Your task to perform on an android device: toggle show notifications on the lock screen Image 0: 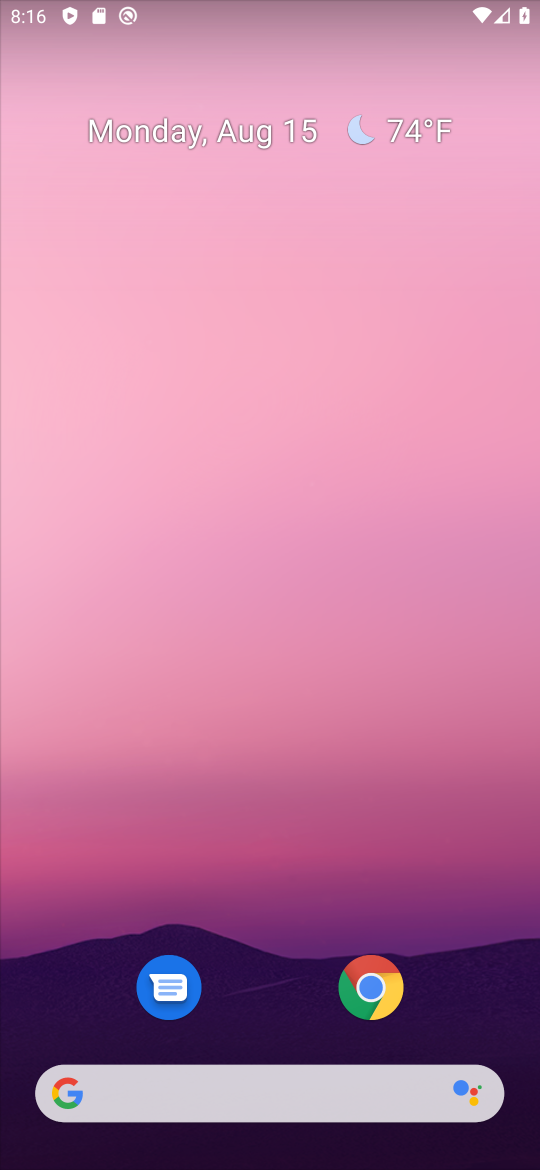
Step 0: drag from (338, 1060) to (207, 280)
Your task to perform on an android device: toggle show notifications on the lock screen Image 1: 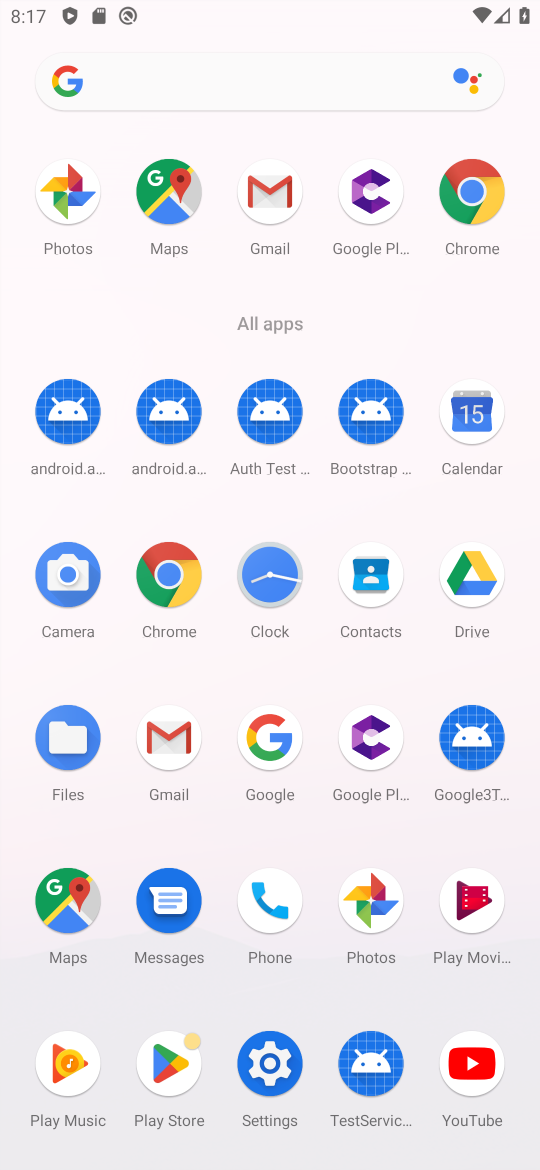
Step 1: click (272, 1081)
Your task to perform on an android device: toggle show notifications on the lock screen Image 2: 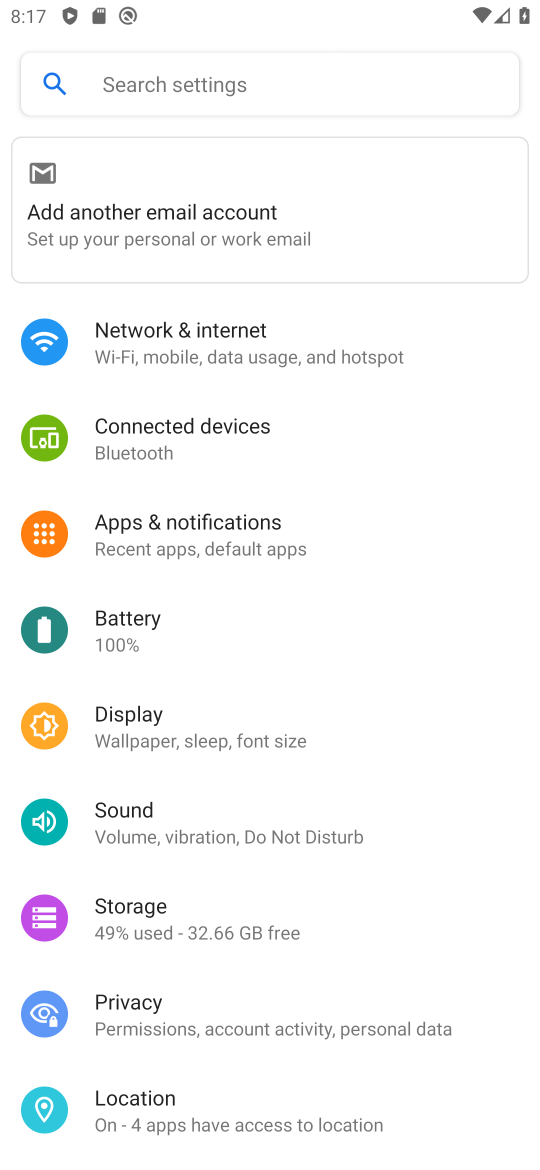
Step 2: click (134, 1035)
Your task to perform on an android device: toggle show notifications on the lock screen Image 3: 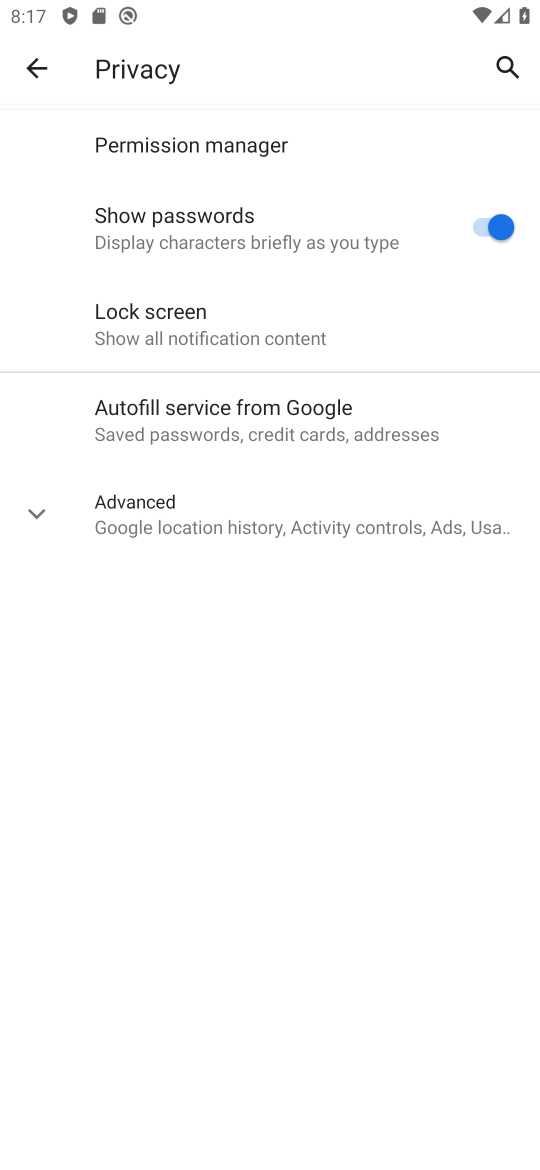
Step 3: click (174, 303)
Your task to perform on an android device: toggle show notifications on the lock screen Image 4: 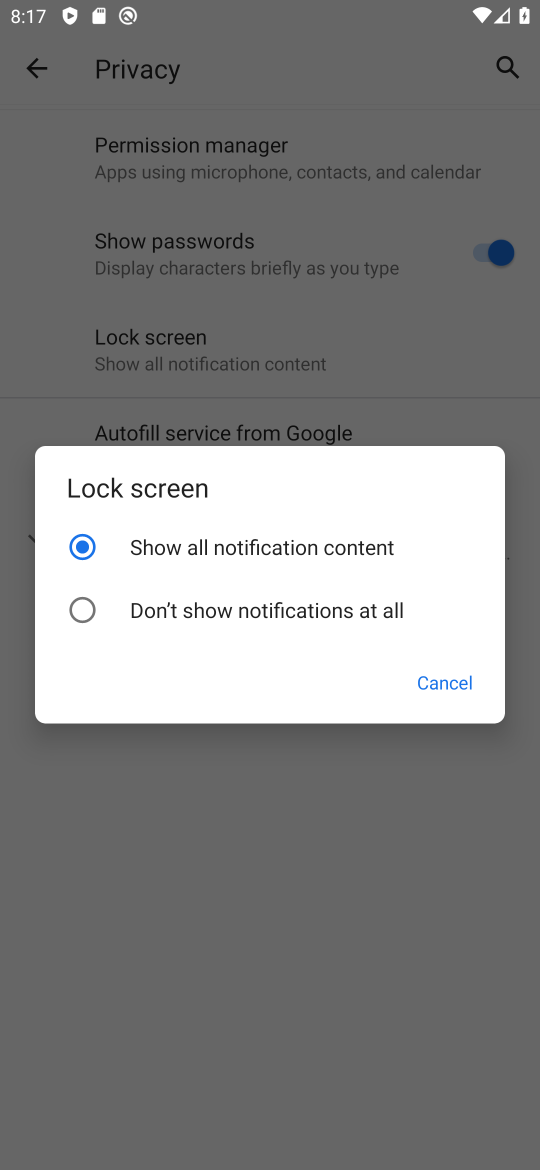
Step 4: click (269, 616)
Your task to perform on an android device: toggle show notifications on the lock screen Image 5: 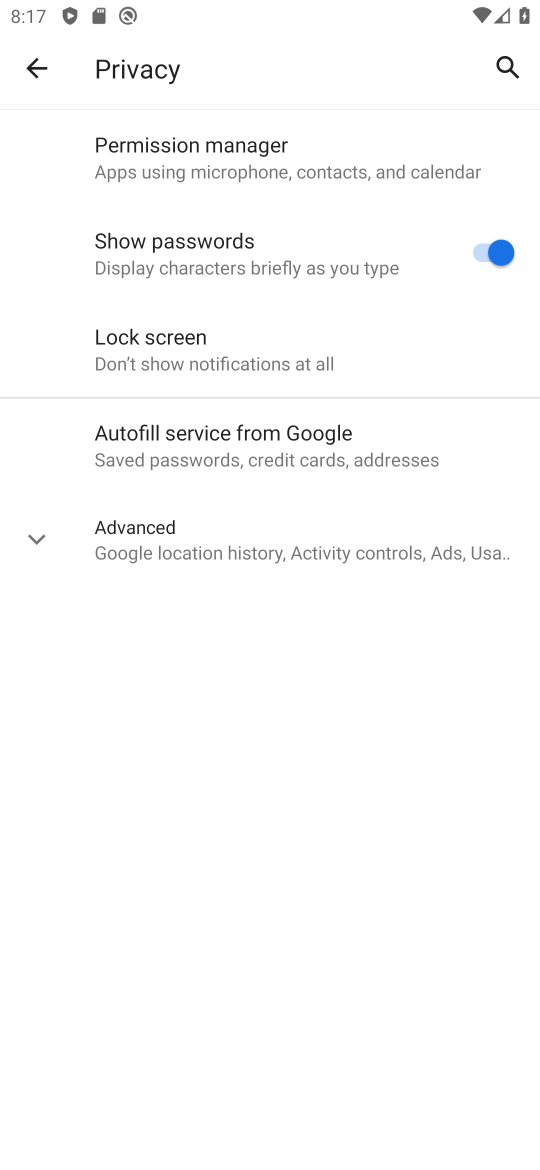
Step 5: task complete